Your task to perform on an android device: Open Youtube and go to "Your channel" Image 0: 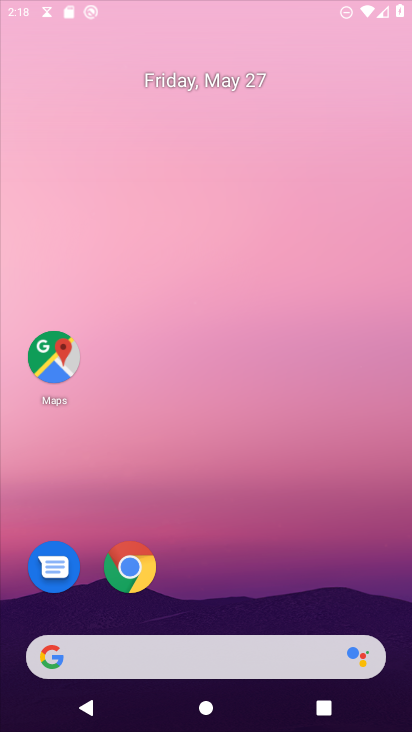
Step 0: drag from (211, 621) to (193, 210)
Your task to perform on an android device: Open Youtube and go to "Your channel" Image 1: 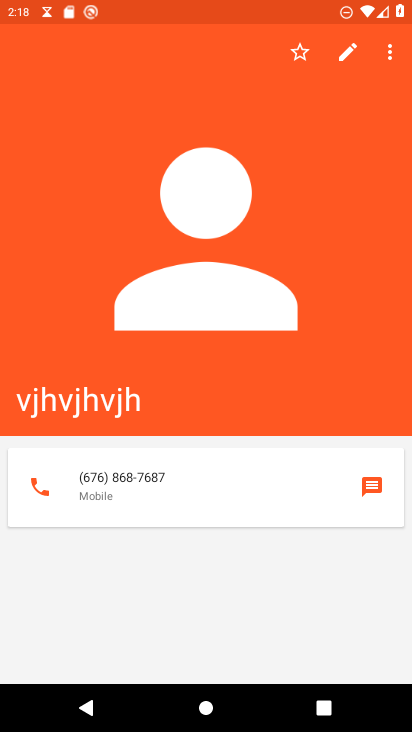
Step 1: press home button
Your task to perform on an android device: Open Youtube and go to "Your channel" Image 2: 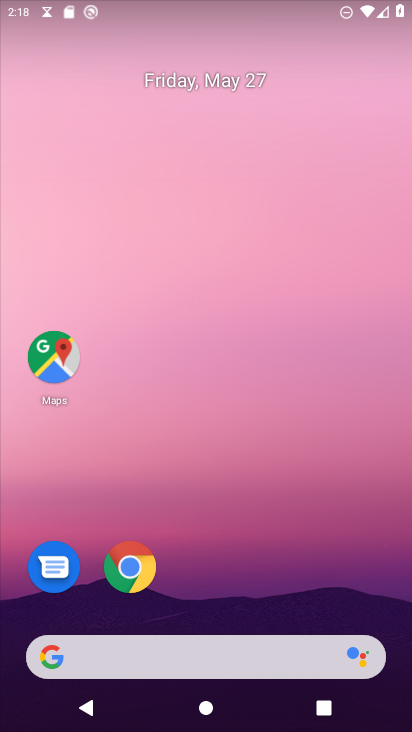
Step 2: drag from (222, 624) to (181, 243)
Your task to perform on an android device: Open Youtube and go to "Your channel" Image 3: 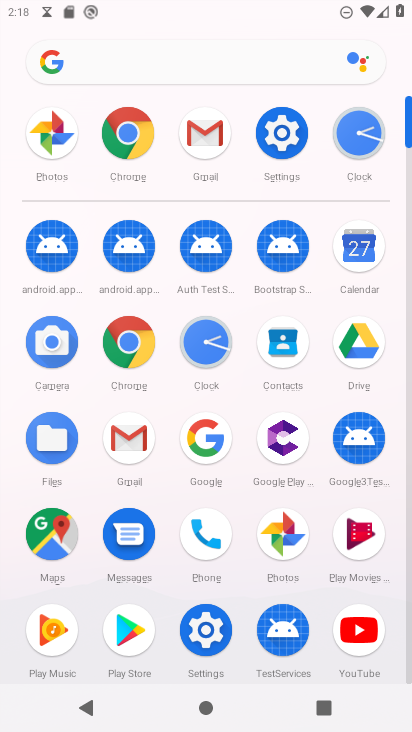
Step 3: click (355, 618)
Your task to perform on an android device: Open Youtube and go to "Your channel" Image 4: 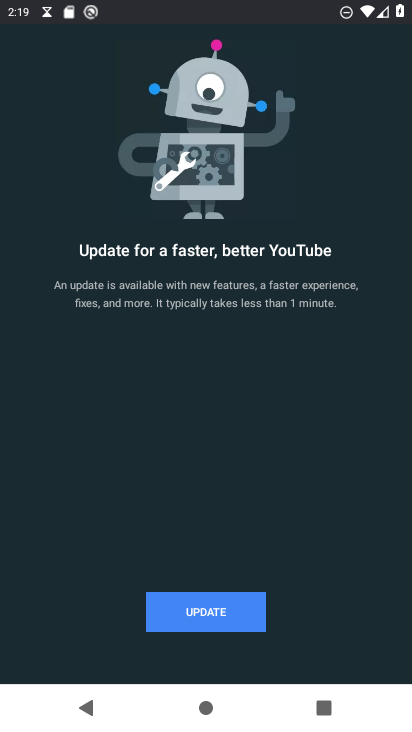
Step 4: click (258, 614)
Your task to perform on an android device: Open Youtube and go to "Your channel" Image 5: 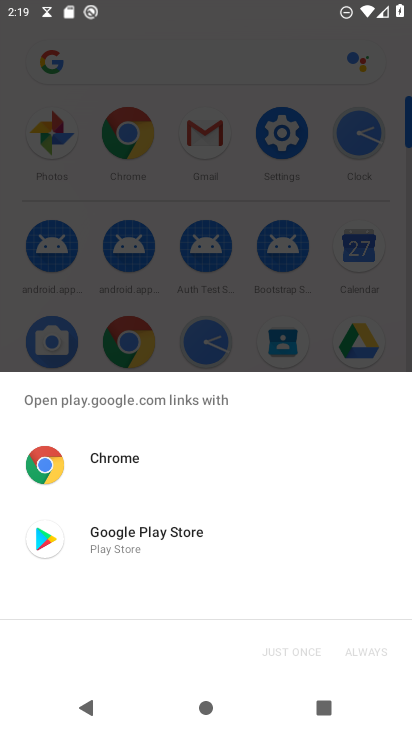
Step 5: click (181, 546)
Your task to perform on an android device: Open Youtube and go to "Your channel" Image 6: 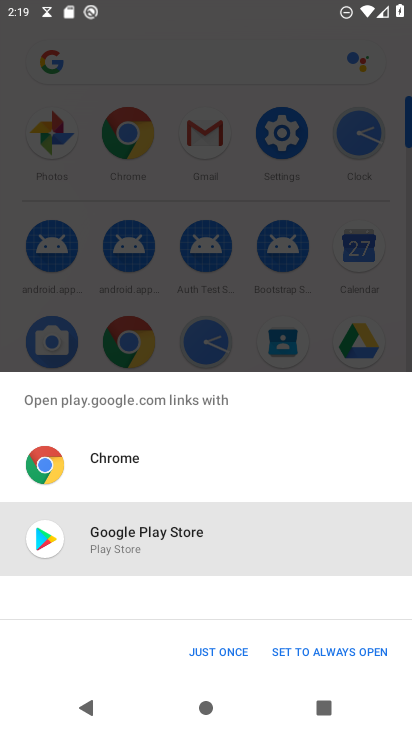
Step 6: click (239, 648)
Your task to perform on an android device: Open Youtube and go to "Your channel" Image 7: 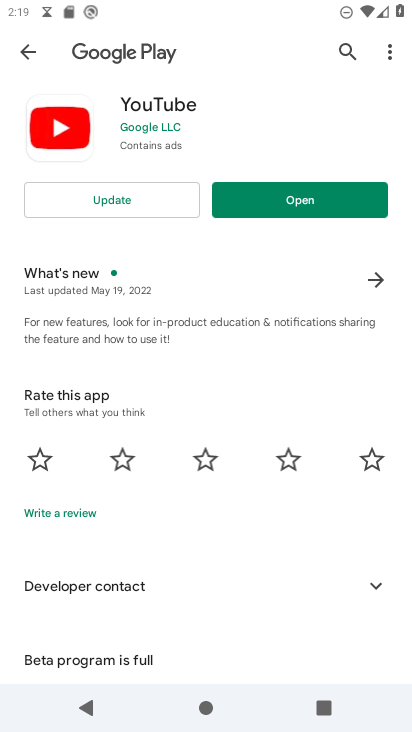
Step 7: click (161, 202)
Your task to perform on an android device: Open Youtube and go to "Your channel" Image 8: 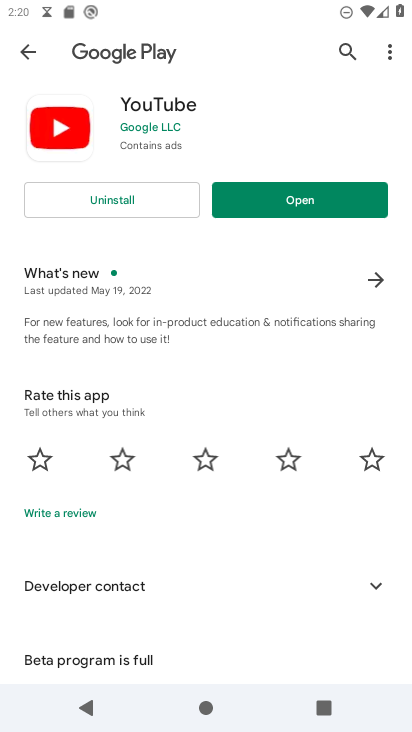
Step 8: click (317, 202)
Your task to perform on an android device: Open Youtube and go to "Your channel" Image 9: 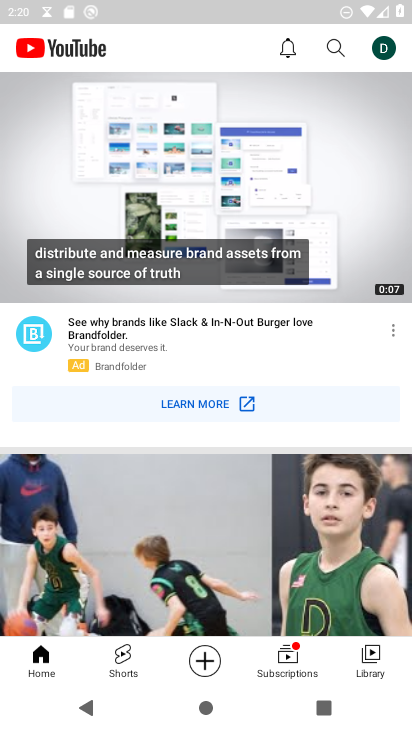
Step 9: click (389, 52)
Your task to perform on an android device: Open Youtube and go to "Your channel" Image 10: 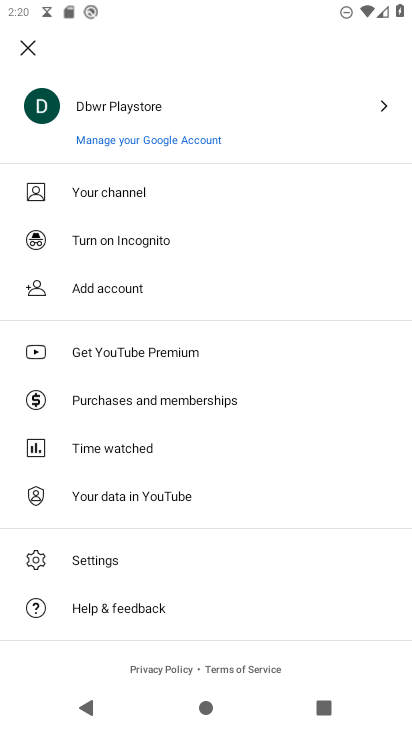
Step 10: click (248, 190)
Your task to perform on an android device: Open Youtube and go to "Your channel" Image 11: 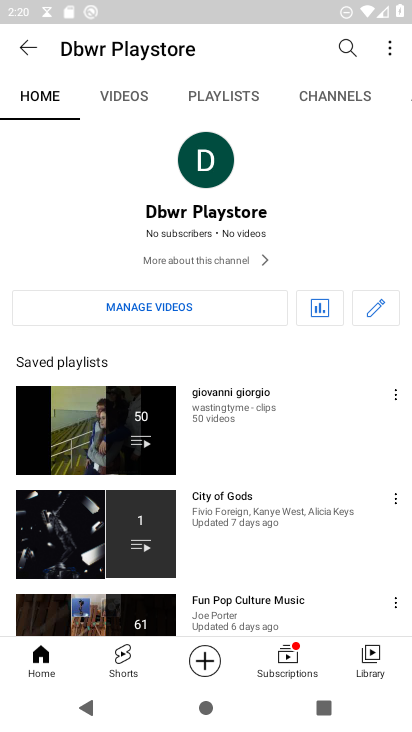
Step 11: task complete